Your task to perform on an android device: Open Google Image 0: 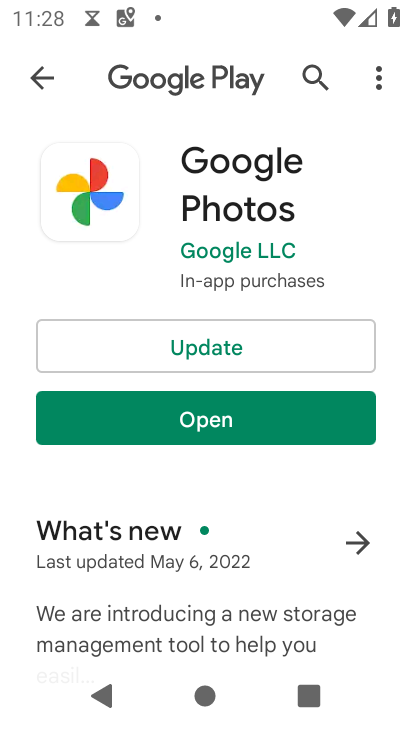
Step 0: press home button
Your task to perform on an android device: Open Google Image 1: 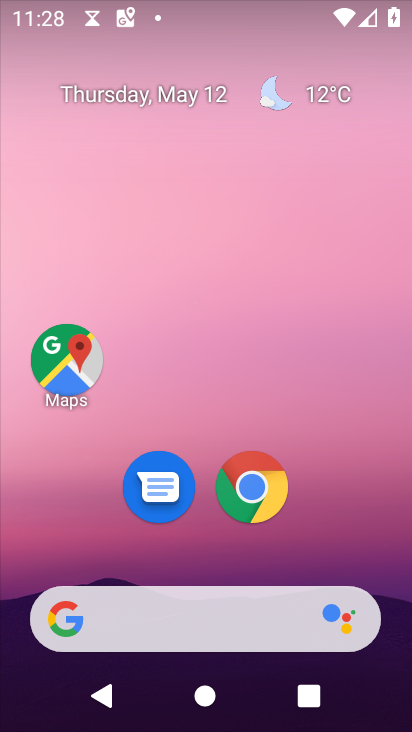
Step 1: drag from (389, 568) to (180, 0)
Your task to perform on an android device: Open Google Image 2: 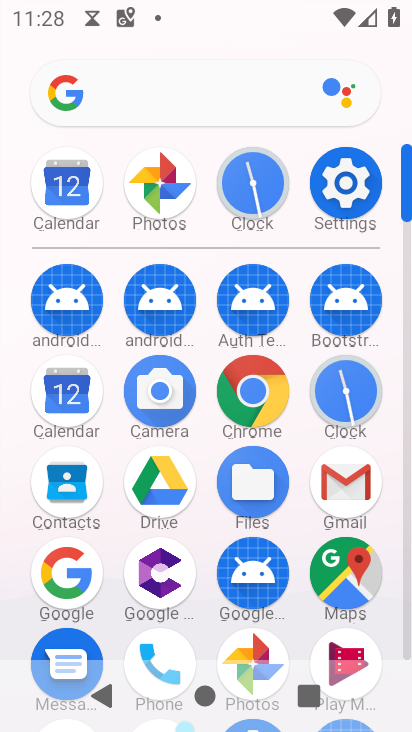
Step 2: click (70, 572)
Your task to perform on an android device: Open Google Image 3: 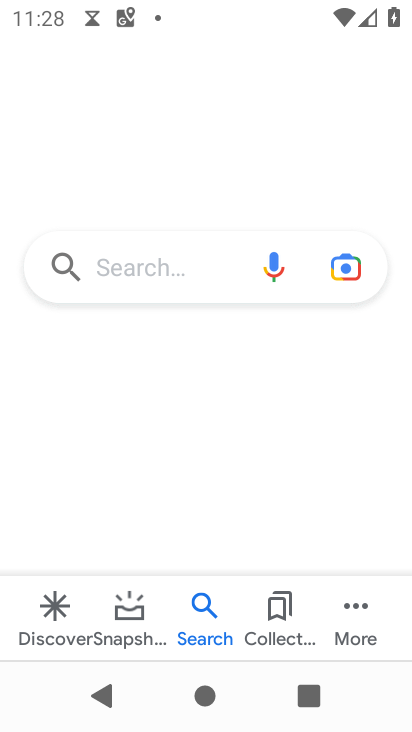
Step 3: press home button
Your task to perform on an android device: Open Google Image 4: 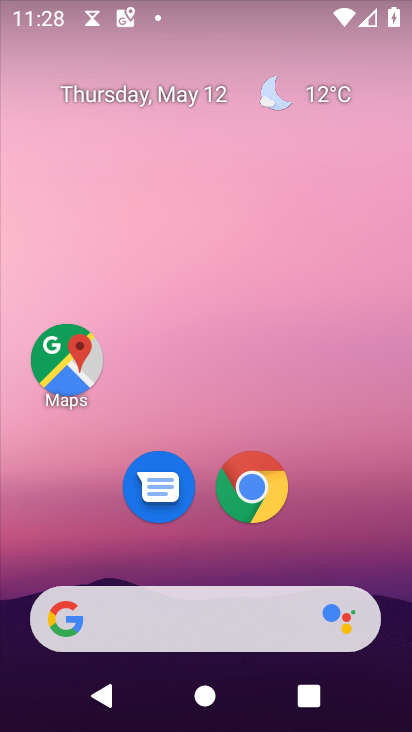
Step 4: drag from (313, 553) to (227, 30)
Your task to perform on an android device: Open Google Image 5: 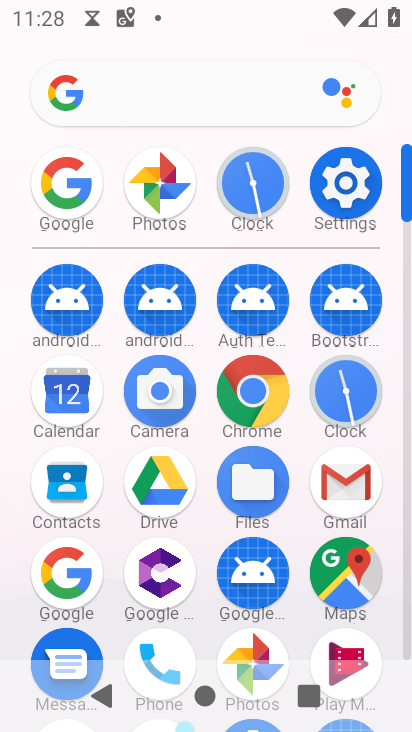
Step 5: click (59, 567)
Your task to perform on an android device: Open Google Image 6: 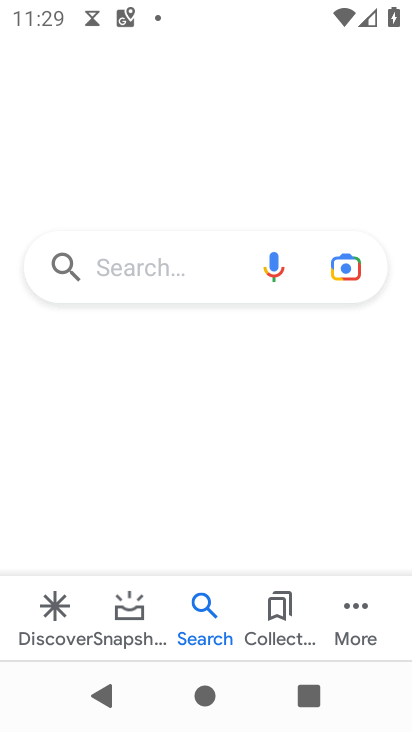
Step 6: task complete